Your task to perform on an android device: change keyboard looks Image 0: 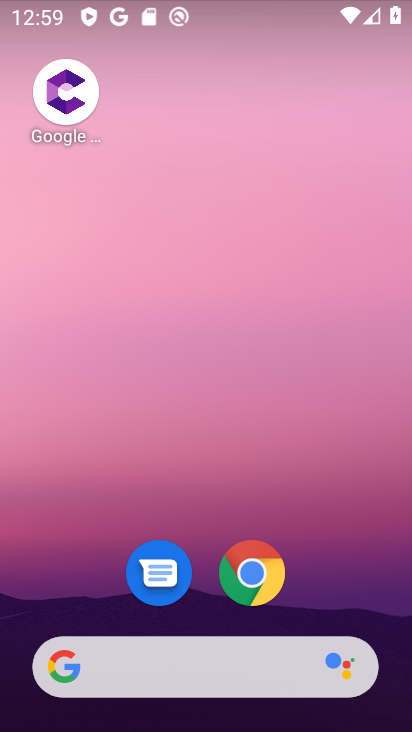
Step 0: drag from (214, 611) to (216, 13)
Your task to perform on an android device: change keyboard looks Image 1: 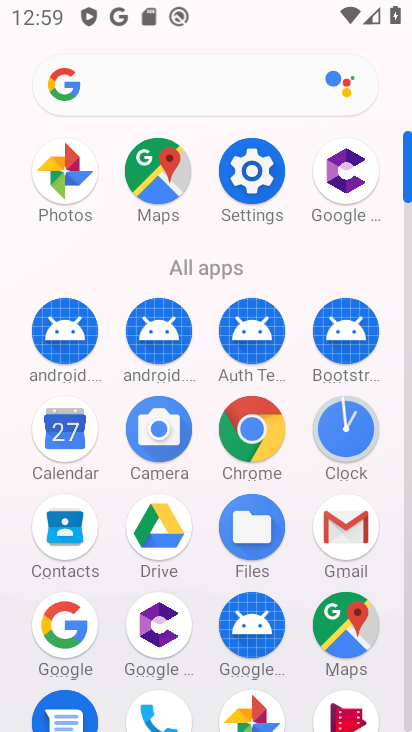
Step 1: click (251, 183)
Your task to perform on an android device: change keyboard looks Image 2: 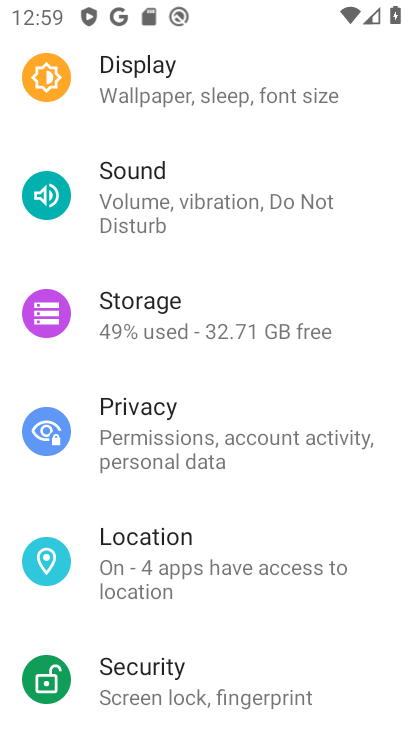
Step 2: drag from (198, 211) to (196, 600)
Your task to perform on an android device: change keyboard looks Image 3: 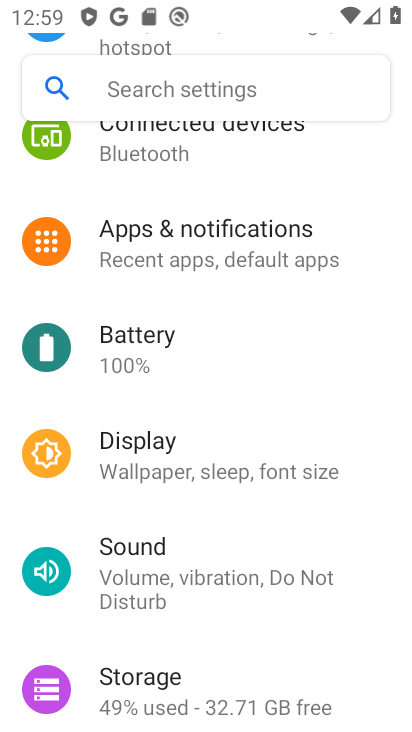
Step 3: drag from (243, 610) to (172, 74)
Your task to perform on an android device: change keyboard looks Image 4: 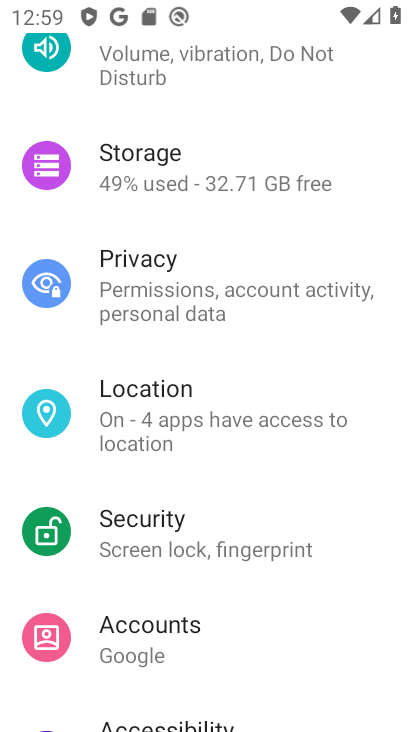
Step 4: drag from (204, 609) to (177, 122)
Your task to perform on an android device: change keyboard looks Image 5: 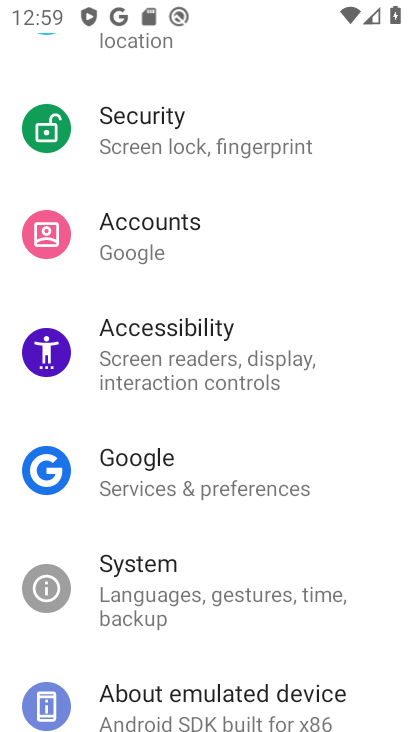
Step 5: click (164, 558)
Your task to perform on an android device: change keyboard looks Image 6: 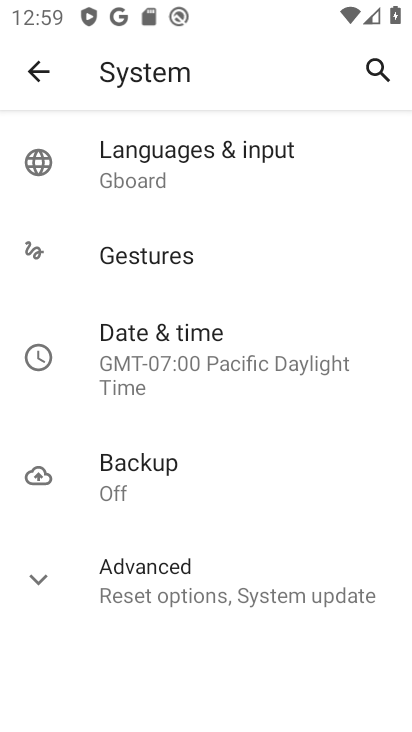
Step 6: click (227, 160)
Your task to perform on an android device: change keyboard looks Image 7: 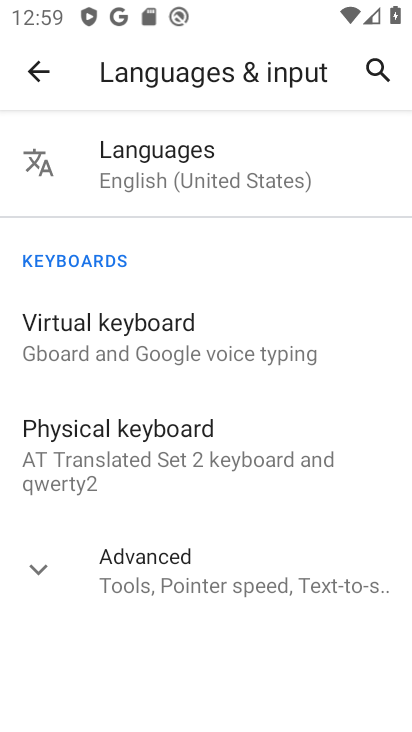
Step 7: click (177, 329)
Your task to perform on an android device: change keyboard looks Image 8: 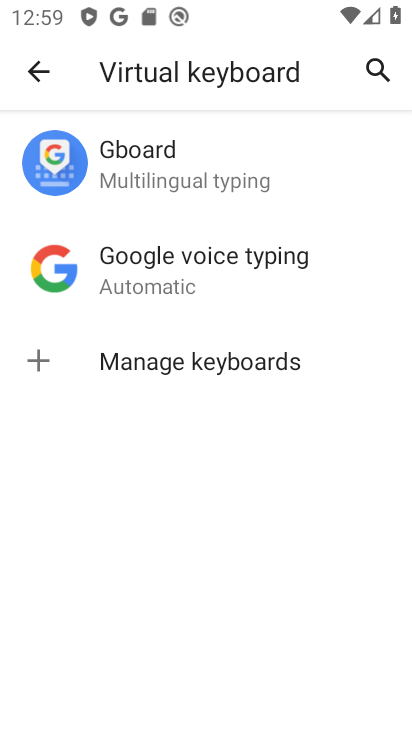
Step 8: click (149, 179)
Your task to perform on an android device: change keyboard looks Image 9: 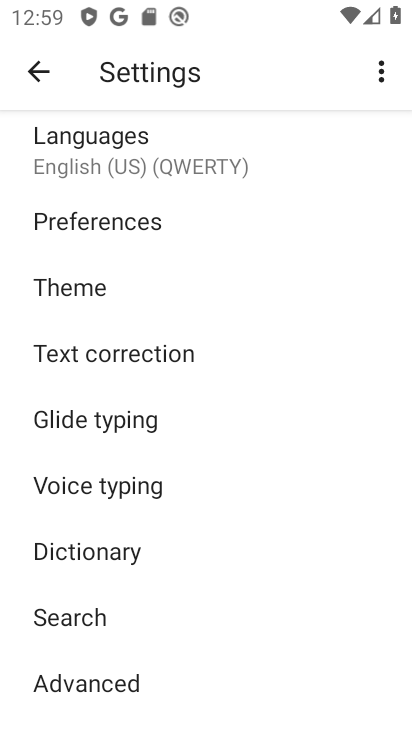
Step 9: click (72, 292)
Your task to perform on an android device: change keyboard looks Image 10: 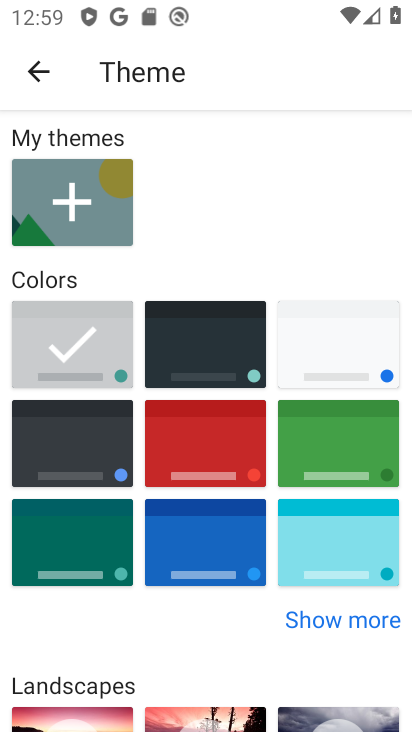
Step 10: click (183, 383)
Your task to perform on an android device: change keyboard looks Image 11: 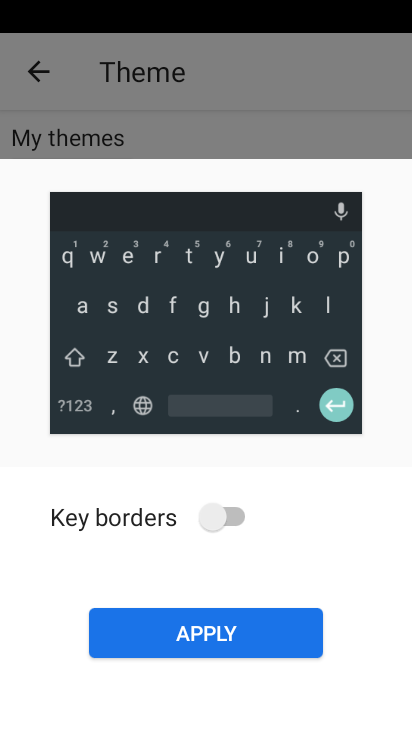
Step 11: click (234, 621)
Your task to perform on an android device: change keyboard looks Image 12: 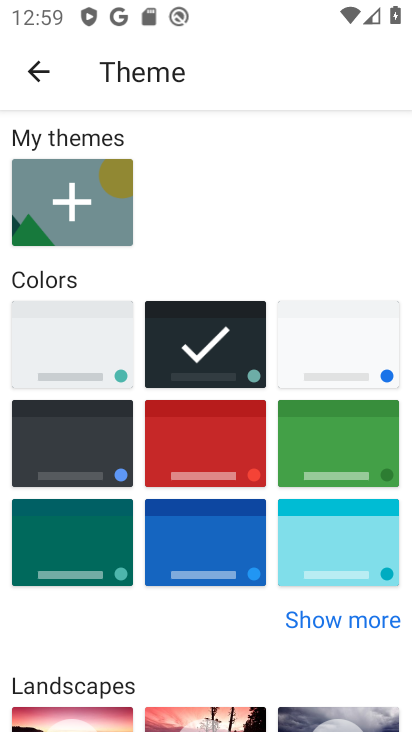
Step 12: task complete